Your task to perform on an android device: add a contact Image 0: 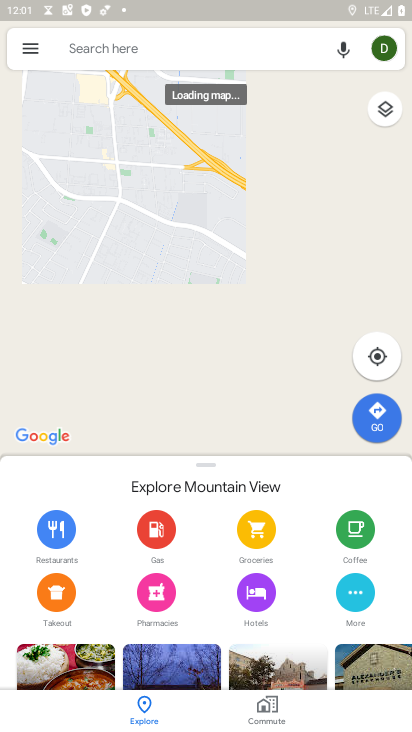
Step 0: press back button
Your task to perform on an android device: add a contact Image 1: 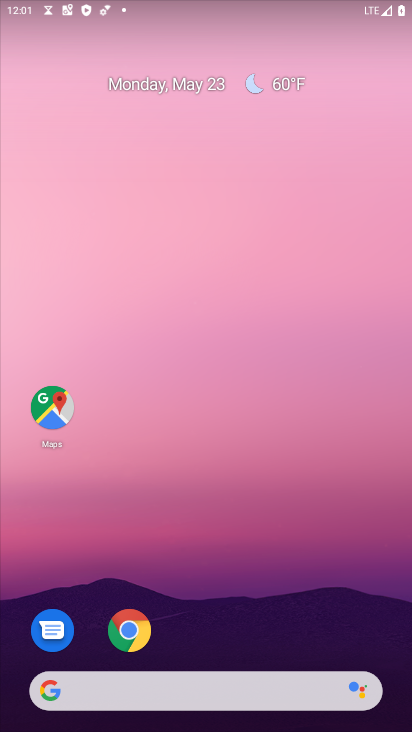
Step 1: drag from (228, 560) to (229, 67)
Your task to perform on an android device: add a contact Image 2: 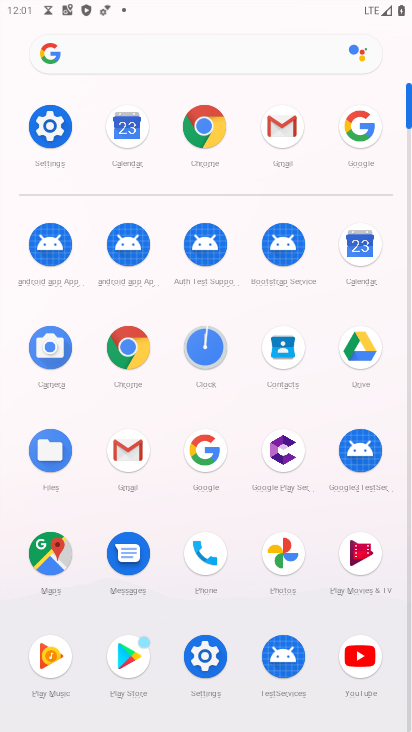
Step 2: click (280, 351)
Your task to perform on an android device: add a contact Image 3: 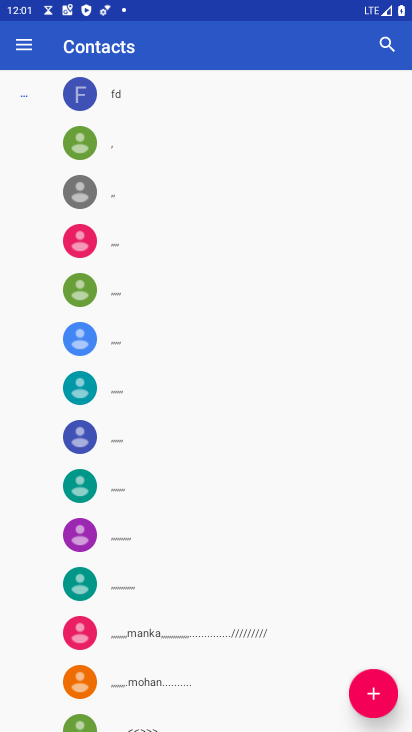
Step 3: click (374, 694)
Your task to perform on an android device: add a contact Image 4: 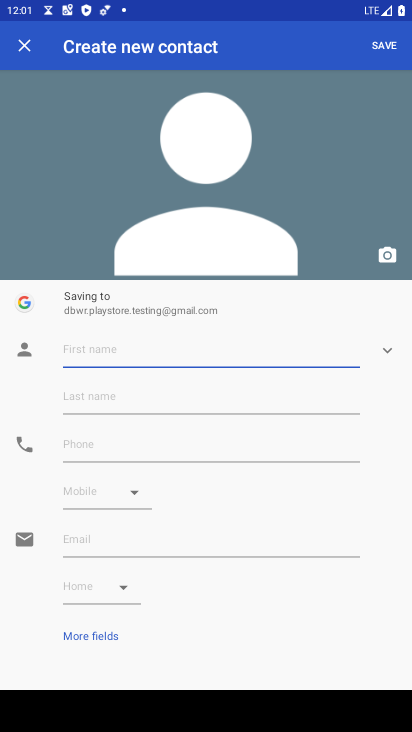
Step 4: click (137, 354)
Your task to perform on an android device: add a contact Image 5: 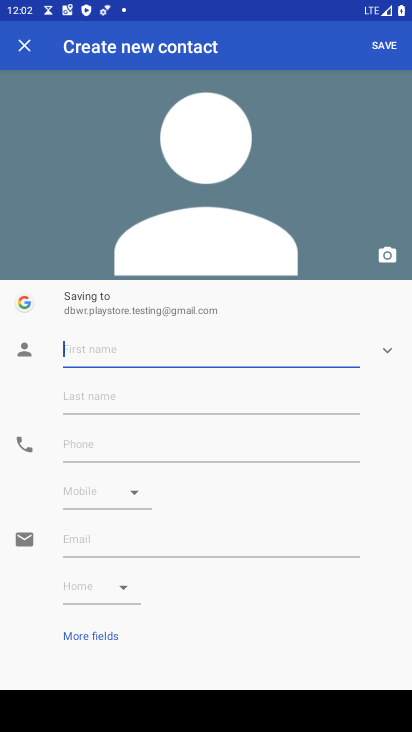
Step 5: type "Chandravibhushan"
Your task to perform on an android device: add a contact Image 6: 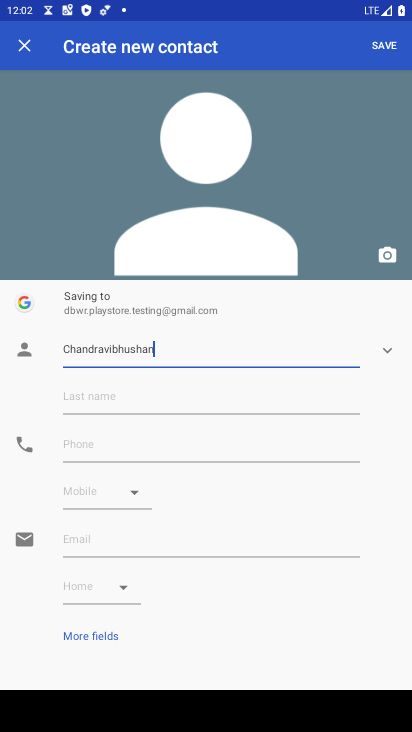
Step 6: click (176, 392)
Your task to perform on an android device: add a contact Image 7: 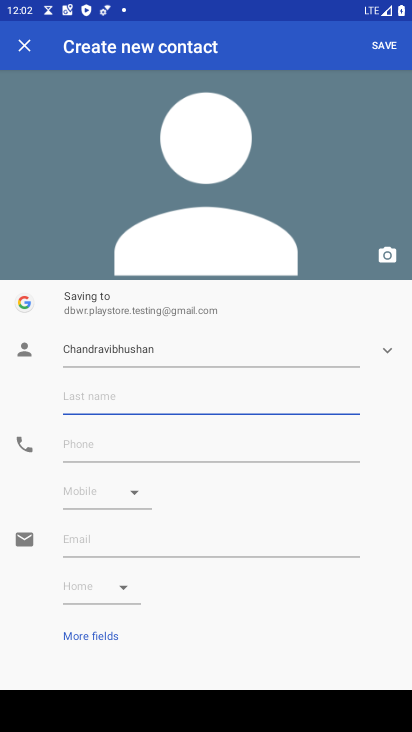
Step 7: type "charan"
Your task to perform on an android device: add a contact Image 8: 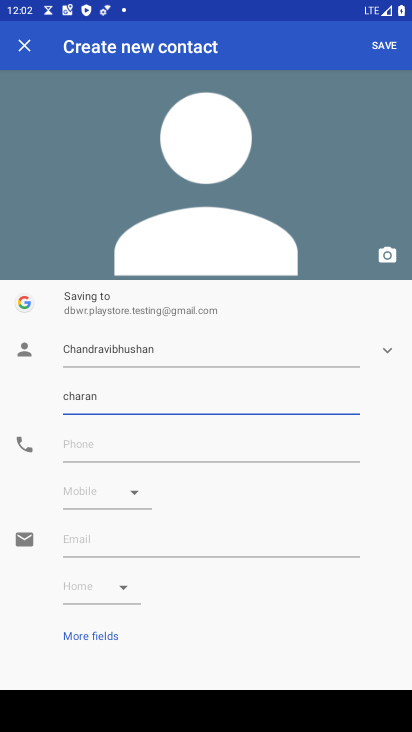
Step 8: click (111, 448)
Your task to perform on an android device: add a contact Image 9: 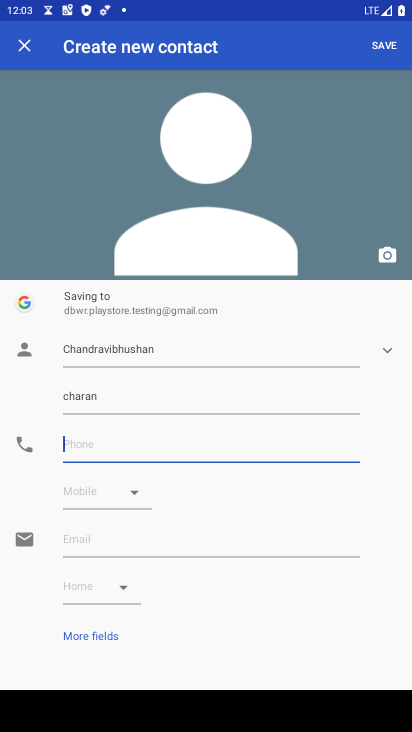
Step 9: type "0998877556632"
Your task to perform on an android device: add a contact Image 10: 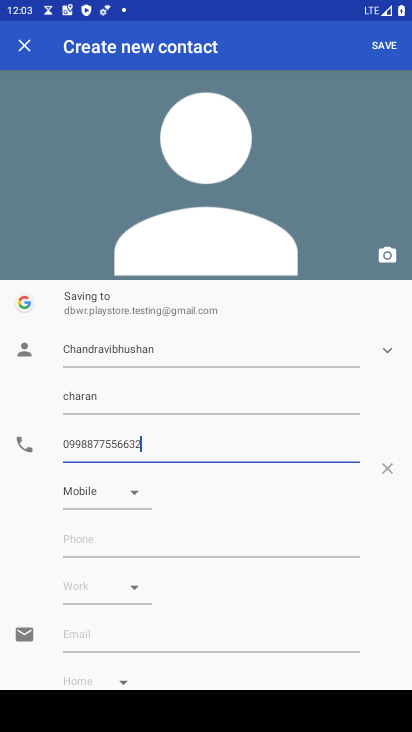
Step 10: click (389, 39)
Your task to perform on an android device: add a contact Image 11: 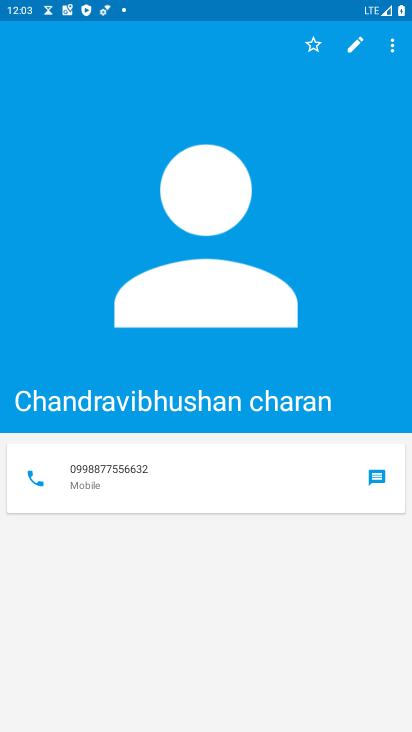
Step 11: task complete